Your task to perform on an android device: delete a single message in the gmail app Image 0: 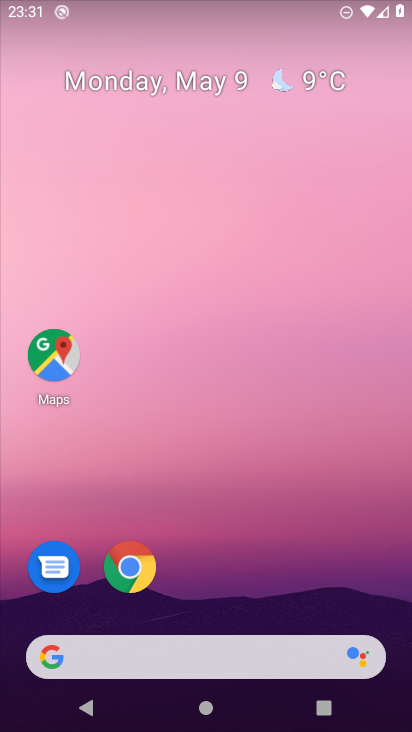
Step 0: drag from (196, 610) to (262, 92)
Your task to perform on an android device: delete a single message in the gmail app Image 1: 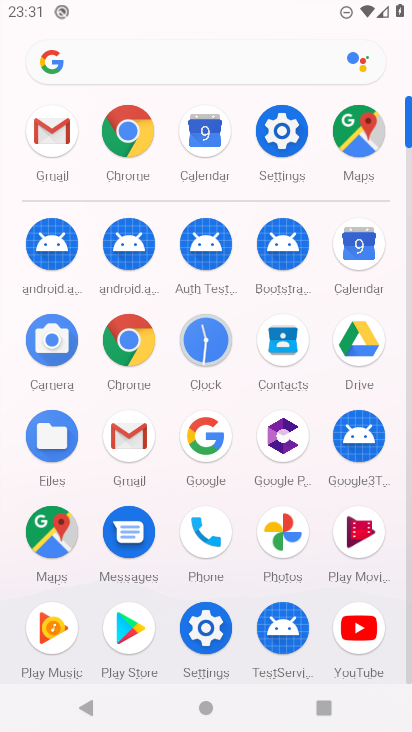
Step 1: click (127, 426)
Your task to perform on an android device: delete a single message in the gmail app Image 2: 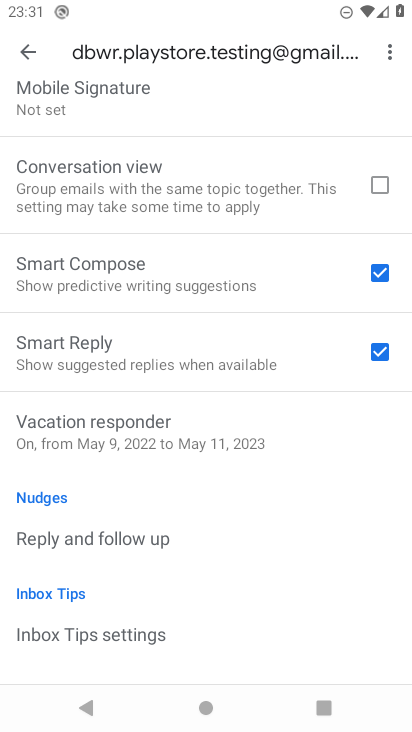
Step 2: press home button
Your task to perform on an android device: delete a single message in the gmail app Image 3: 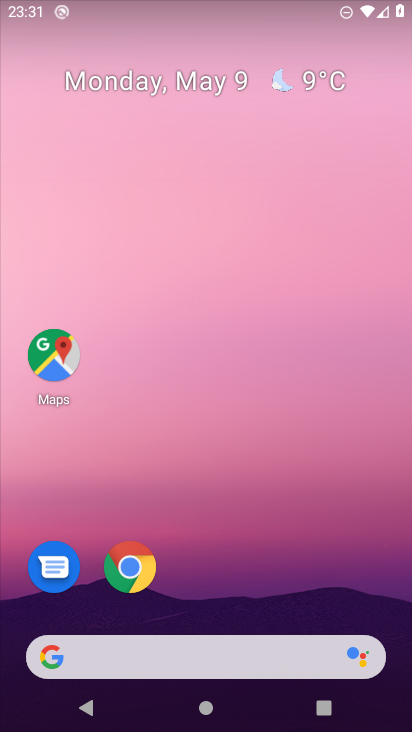
Step 3: drag from (198, 591) to (259, 93)
Your task to perform on an android device: delete a single message in the gmail app Image 4: 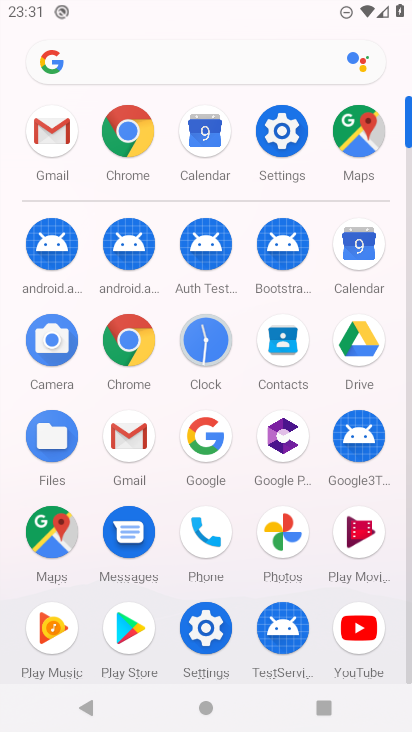
Step 4: click (55, 132)
Your task to perform on an android device: delete a single message in the gmail app Image 5: 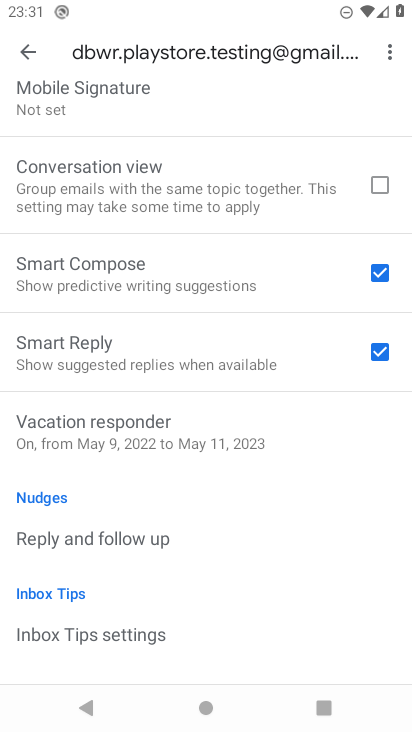
Step 5: click (26, 51)
Your task to perform on an android device: delete a single message in the gmail app Image 6: 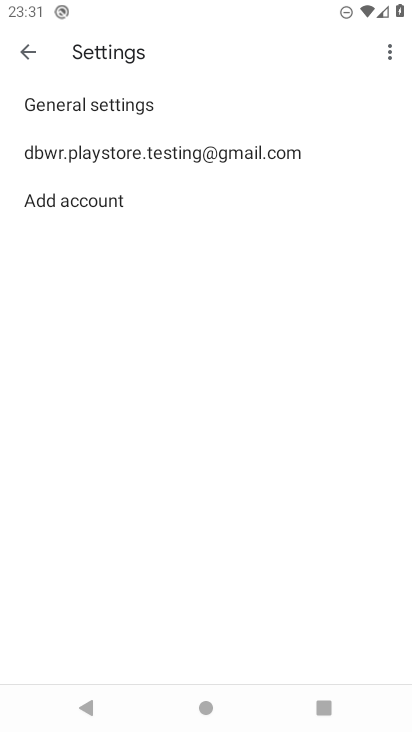
Step 6: click (24, 45)
Your task to perform on an android device: delete a single message in the gmail app Image 7: 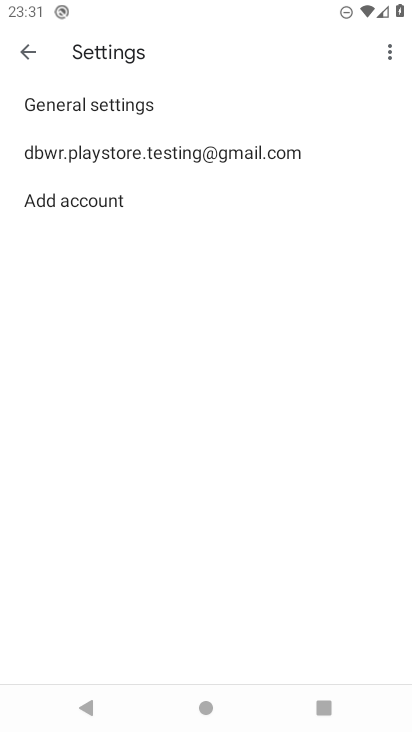
Step 7: click (23, 55)
Your task to perform on an android device: delete a single message in the gmail app Image 8: 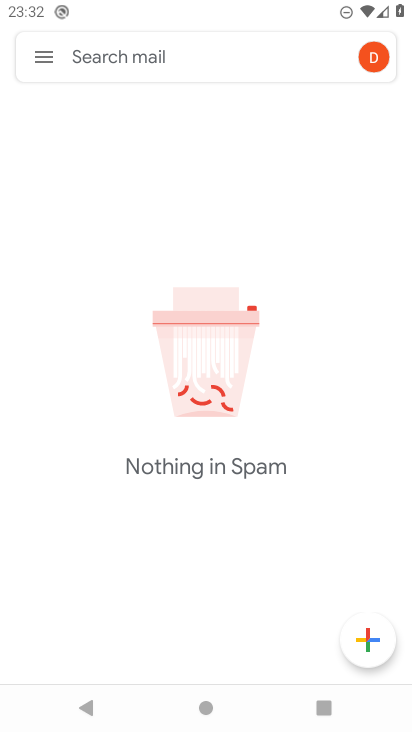
Step 8: click (51, 54)
Your task to perform on an android device: delete a single message in the gmail app Image 9: 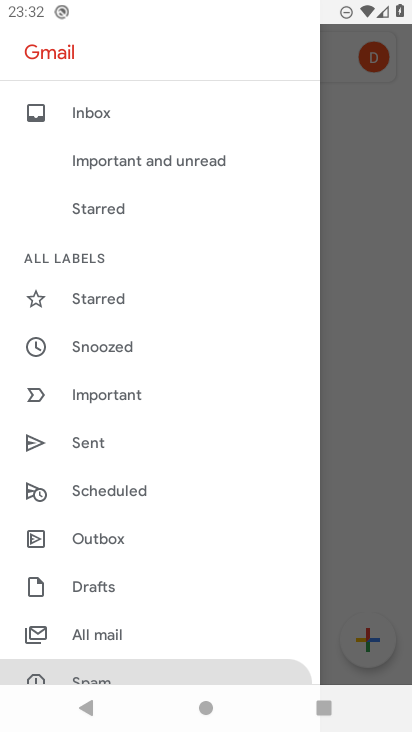
Step 9: click (101, 630)
Your task to perform on an android device: delete a single message in the gmail app Image 10: 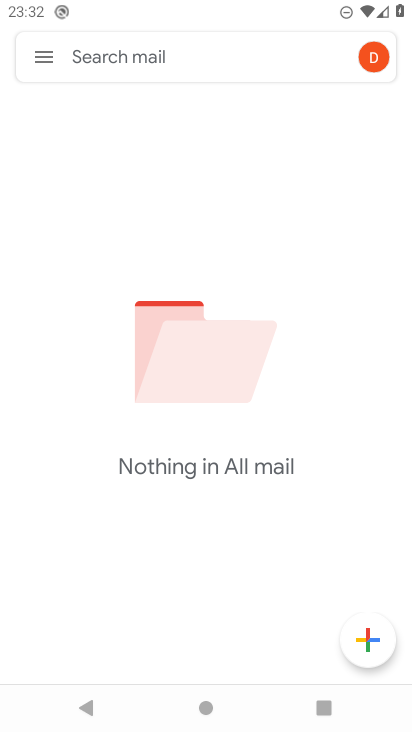
Step 10: task complete